Your task to perform on an android device: Do I have any events today? Image 0: 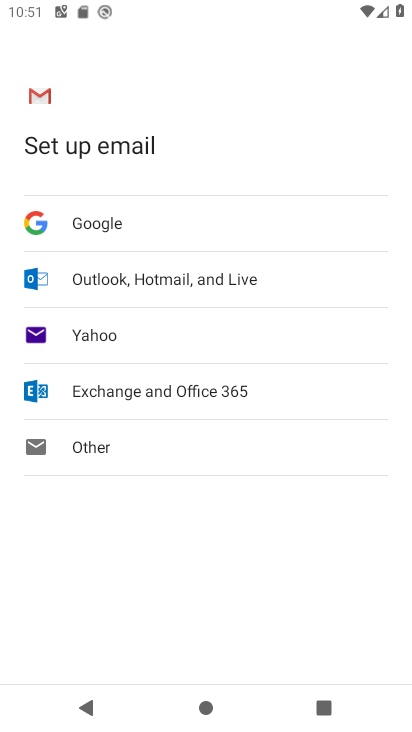
Step 0: press home button
Your task to perform on an android device: Do I have any events today? Image 1: 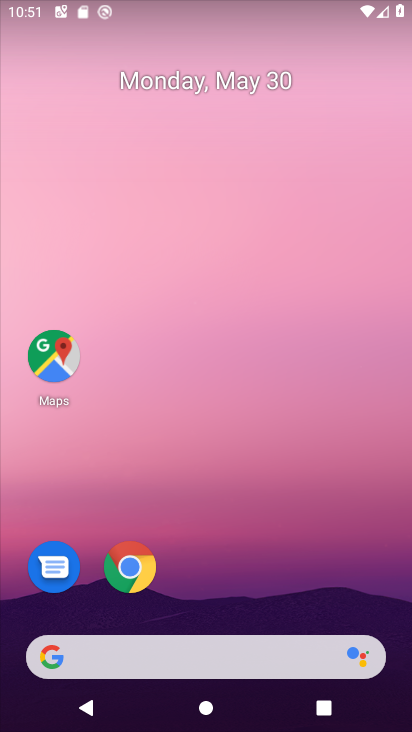
Step 1: drag from (242, 647) to (244, 264)
Your task to perform on an android device: Do I have any events today? Image 2: 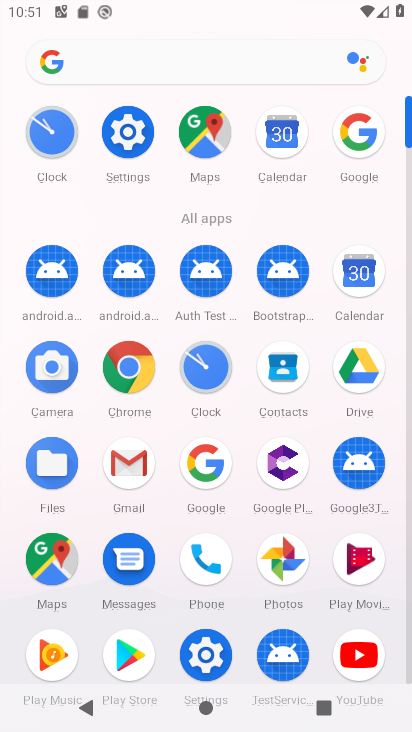
Step 2: click (348, 275)
Your task to perform on an android device: Do I have any events today? Image 3: 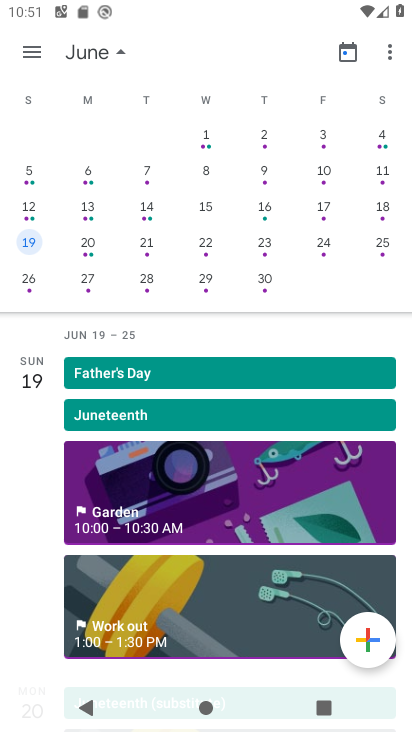
Step 3: drag from (9, 212) to (376, 215)
Your task to perform on an android device: Do I have any events today? Image 4: 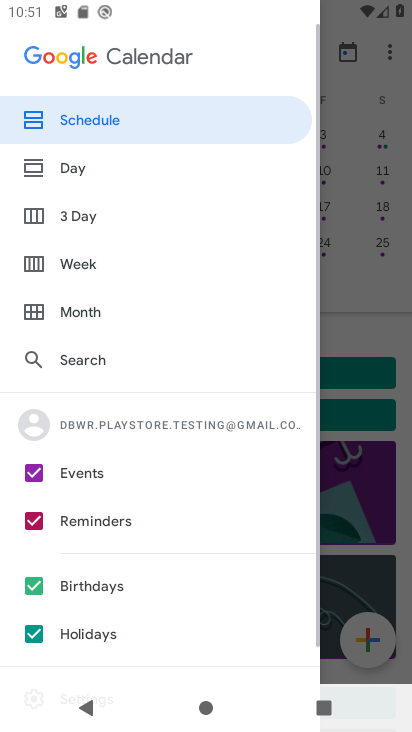
Step 4: click (381, 265)
Your task to perform on an android device: Do I have any events today? Image 5: 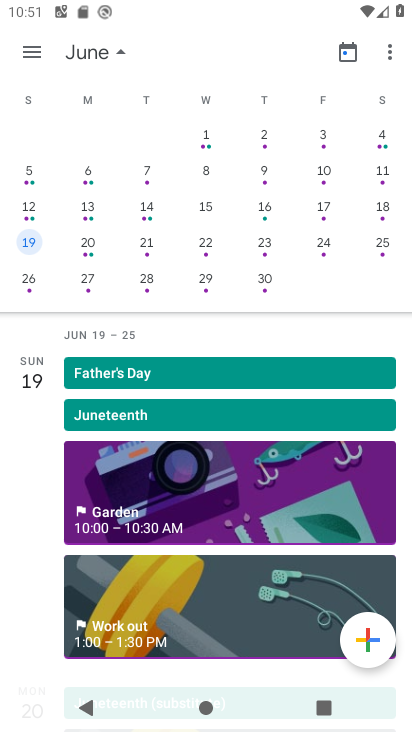
Step 5: drag from (109, 260) to (403, 294)
Your task to perform on an android device: Do I have any events today? Image 6: 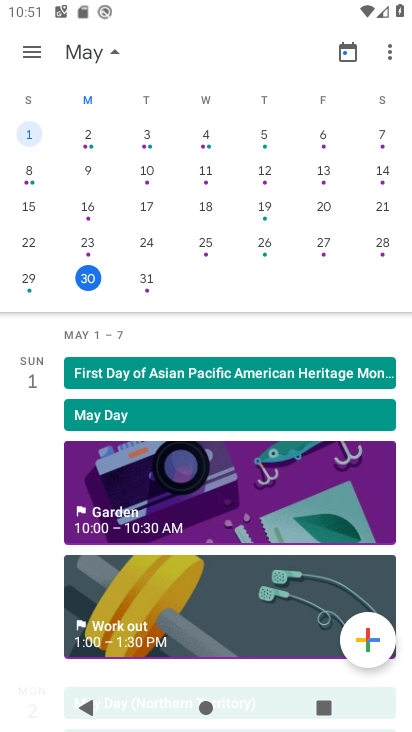
Step 6: click (89, 280)
Your task to perform on an android device: Do I have any events today? Image 7: 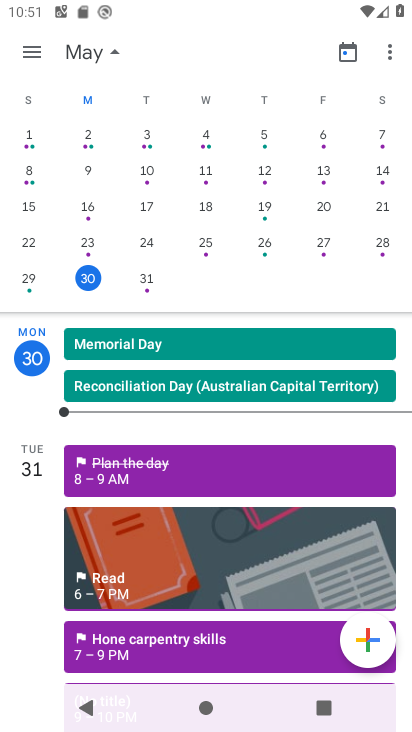
Step 7: click (186, 347)
Your task to perform on an android device: Do I have any events today? Image 8: 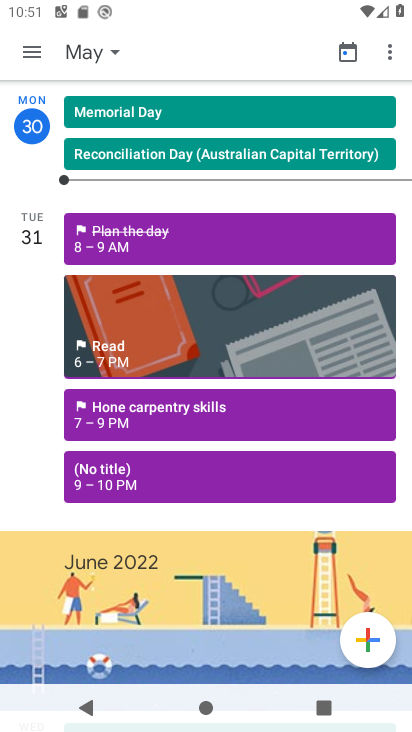
Step 8: task complete